Your task to perform on an android device: turn smart compose on in the gmail app Image 0: 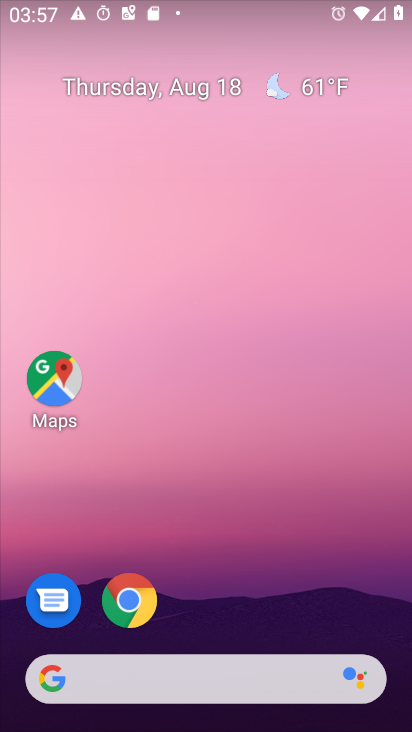
Step 0: press home button
Your task to perform on an android device: turn smart compose on in the gmail app Image 1: 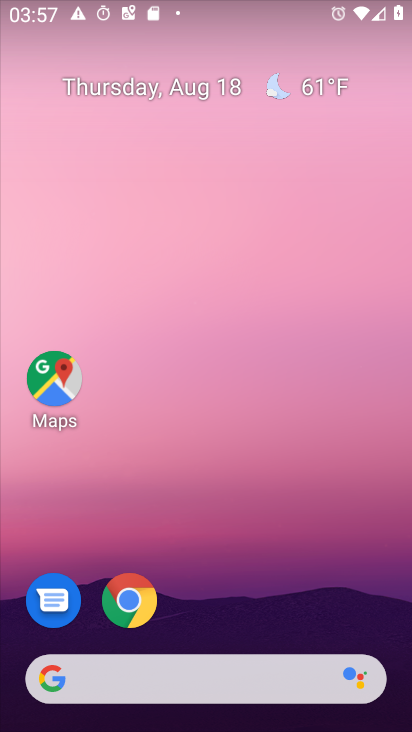
Step 1: drag from (223, 629) to (253, 64)
Your task to perform on an android device: turn smart compose on in the gmail app Image 2: 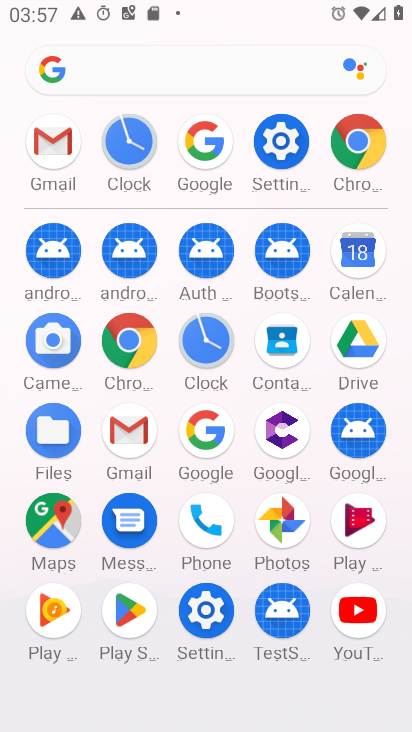
Step 2: click (61, 142)
Your task to perform on an android device: turn smart compose on in the gmail app Image 3: 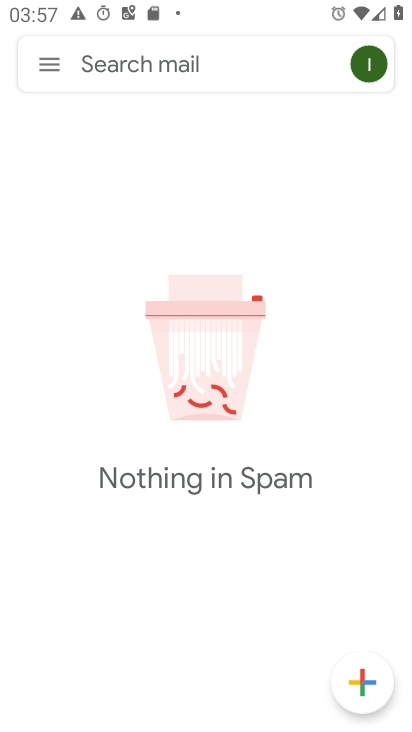
Step 3: click (49, 60)
Your task to perform on an android device: turn smart compose on in the gmail app Image 4: 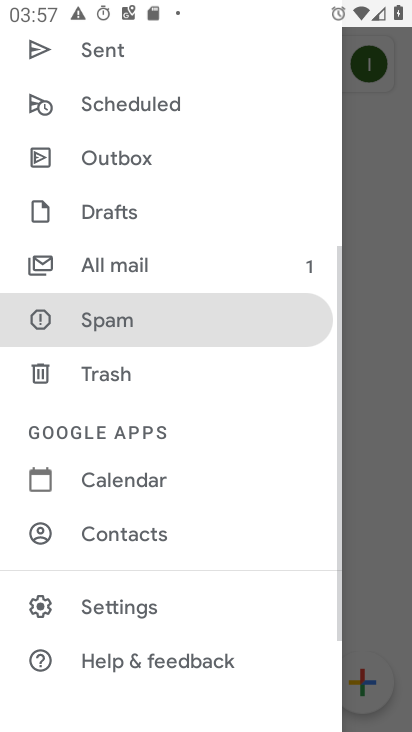
Step 4: click (135, 610)
Your task to perform on an android device: turn smart compose on in the gmail app Image 5: 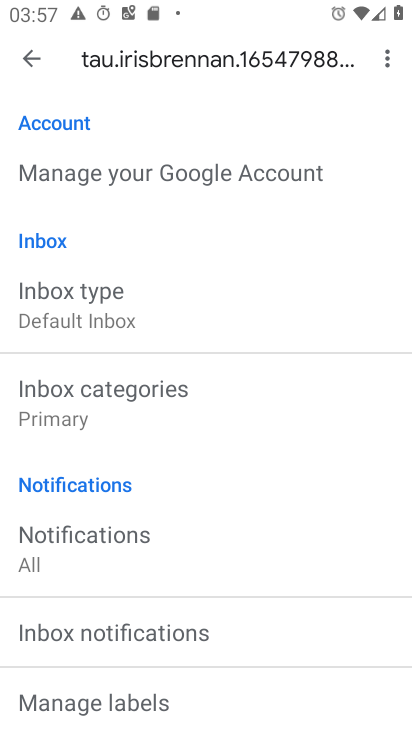
Step 5: task complete